Your task to perform on an android device: turn off wifi Image 0: 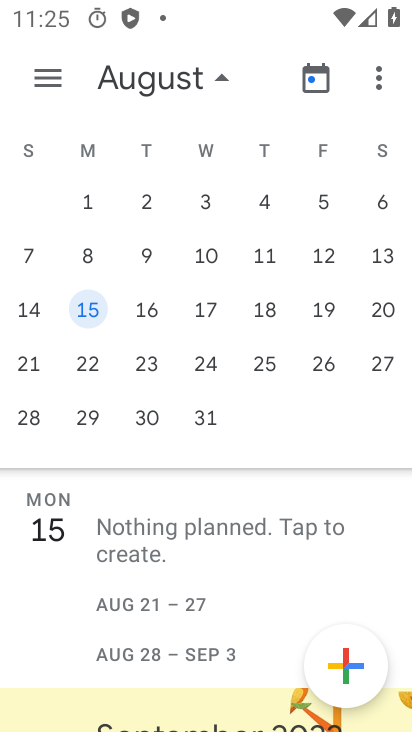
Step 0: press back button
Your task to perform on an android device: turn off wifi Image 1: 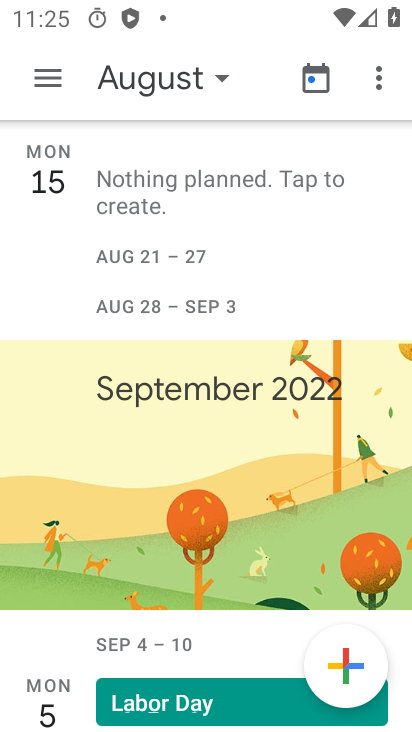
Step 1: press back button
Your task to perform on an android device: turn off wifi Image 2: 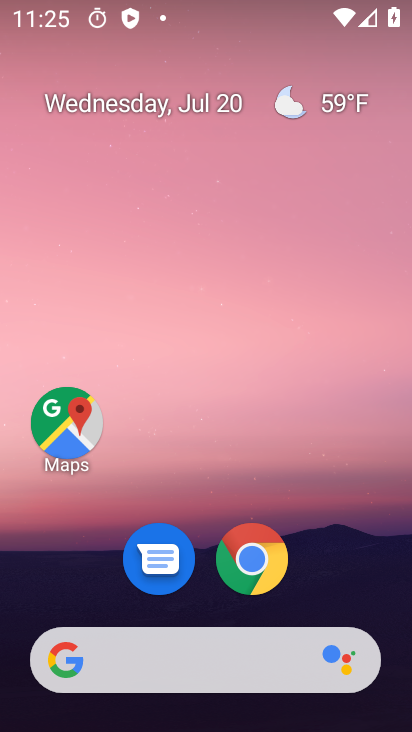
Step 2: drag from (151, 12) to (234, 601)
Your task to perform on an android device: turn off wifi Image 3: 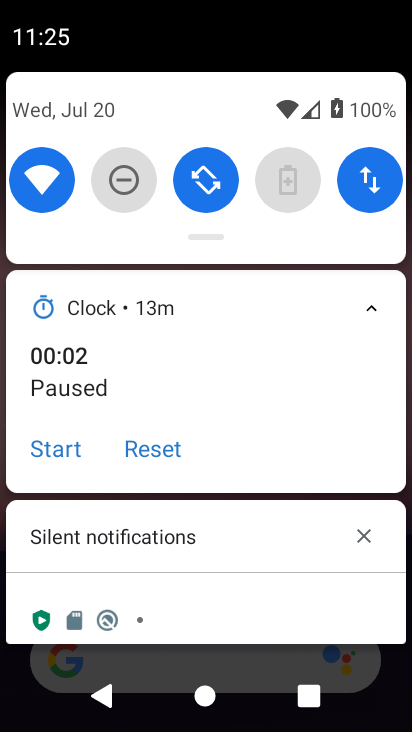
Step 3: click (50, 181)
Your task to perform on an android device: turn off wifi Image 4: 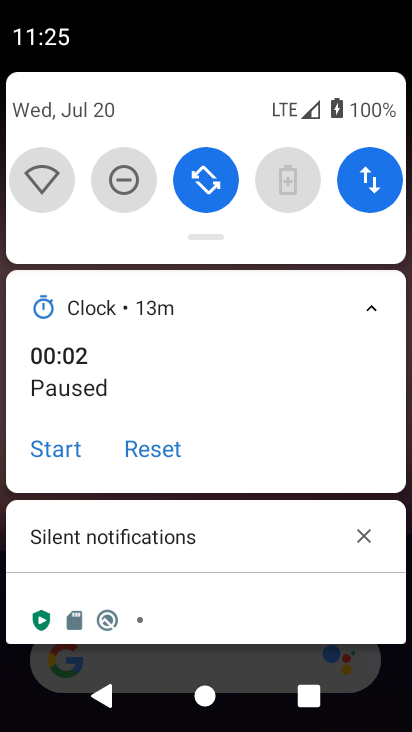
Step 4: task complete